Your task to perform on an android device: Open calendar and show me the second week of next month Image 0: 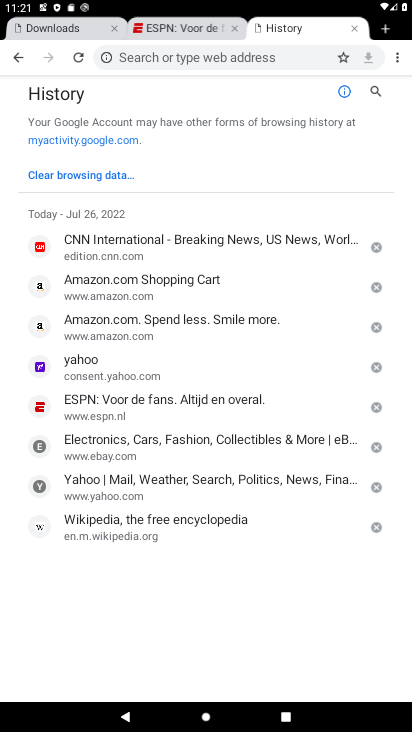
Step 0: press home button
Your task to perform on an android device: Open calendar and show me the second week of next month Image 1: 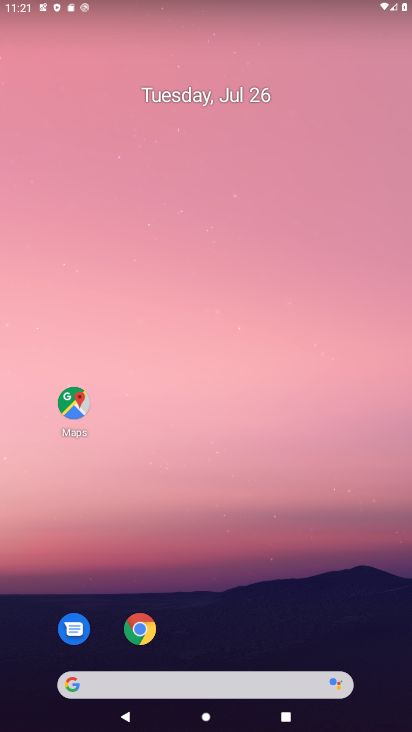
Step 1: drag from (213, 615) to (223, 470)
Your task to perform on an android device: Open calendar and show me the second week of next month Image 2: 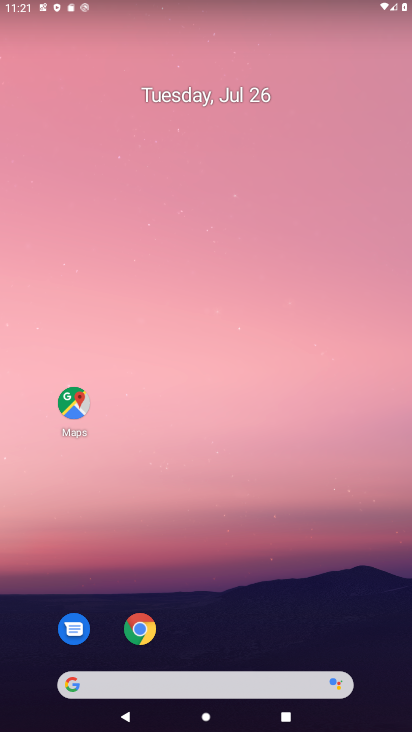
Step 2: drag from (236, 655) to (315, 122)
Your task to perform on an android device: Open calendar and show me the second week of next month Image 3: 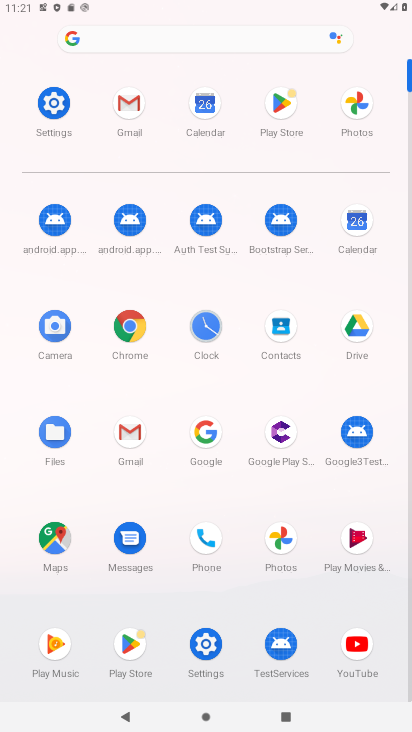
Step 3: click (199, 118)
Your task to perform on an android device: Open calendar and show me the second week of next month Image 4: 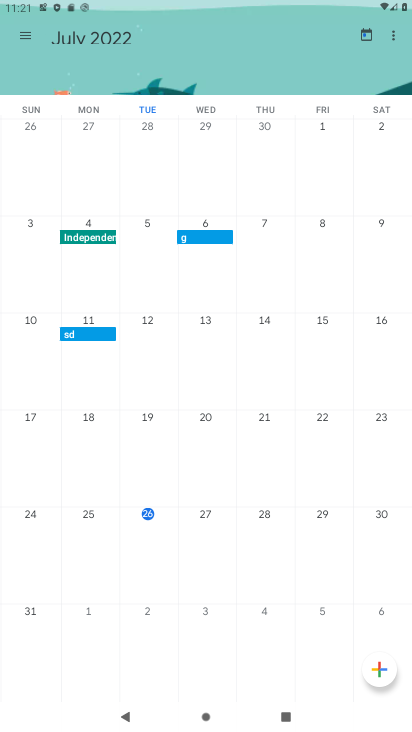
Step 4: task complete